Your task to perform on an android device: What's the weather? Image 0: 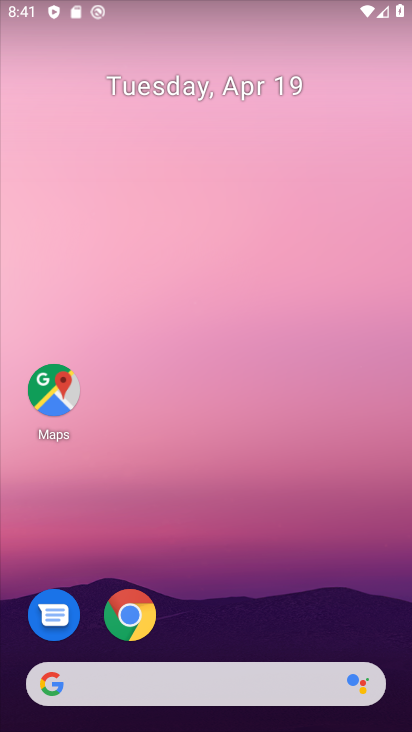
Step 0: click (177, 682)
Your task to perform on an android device: What's the weather? Image 1: 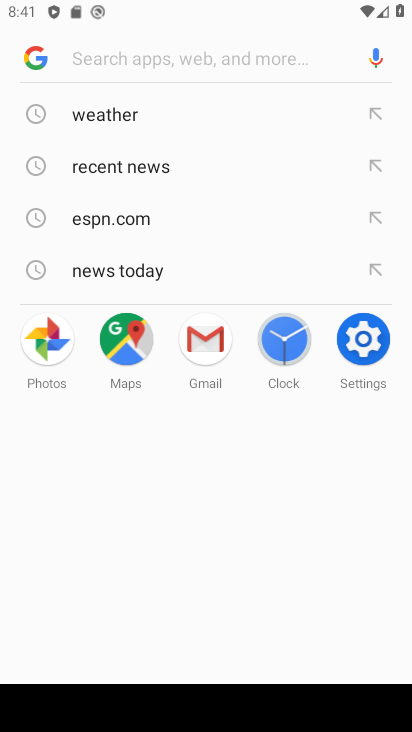
Step 1: click (124, 116)
Your task to perform on an android device: What's the weather? Image 2: 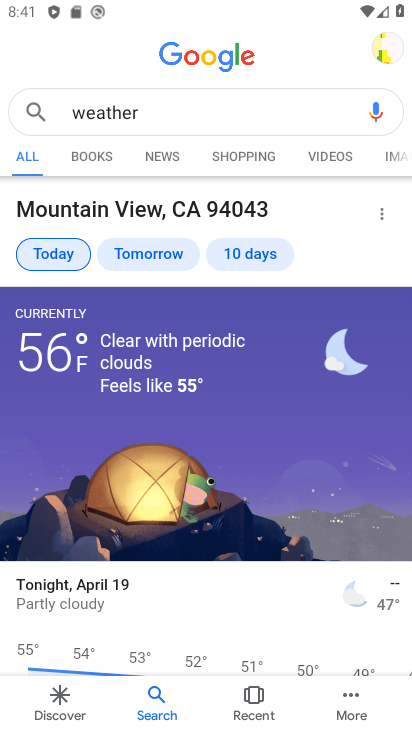
Step 2: task complete